Your task to perform on an android device: Is it going to rain tomorrow? Image 0: 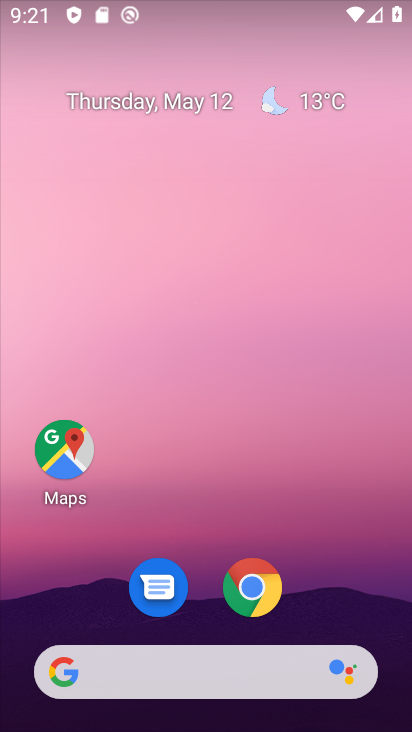
Step 0: drag from (339, 587) to (348, 33)
Your task to perform on an android device: Is it going to rain tomorrow? Image 1: 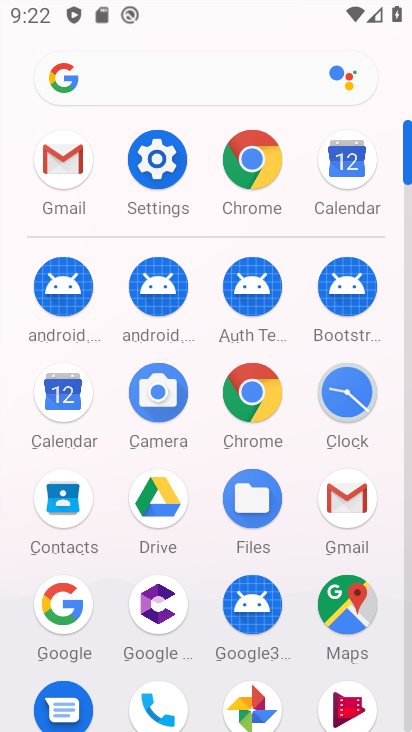
Step 1: press home button
Your task to perform on an android device: Is it going to rain tomorrow? Image 2: 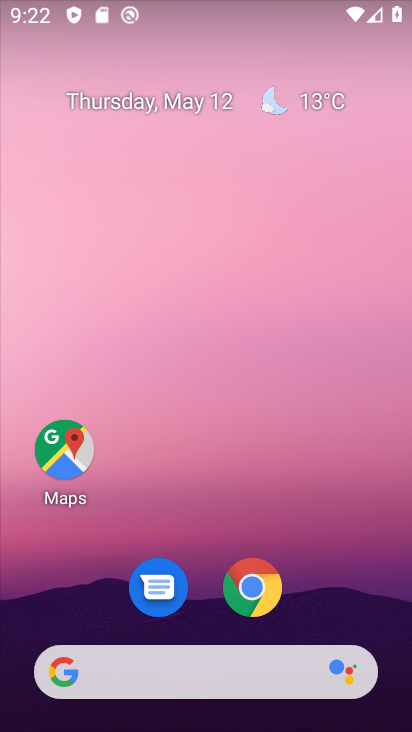
Step 2: click (317, 113)
Your task to perform on an android device: Is it going to rain tomorrow? Image 3: 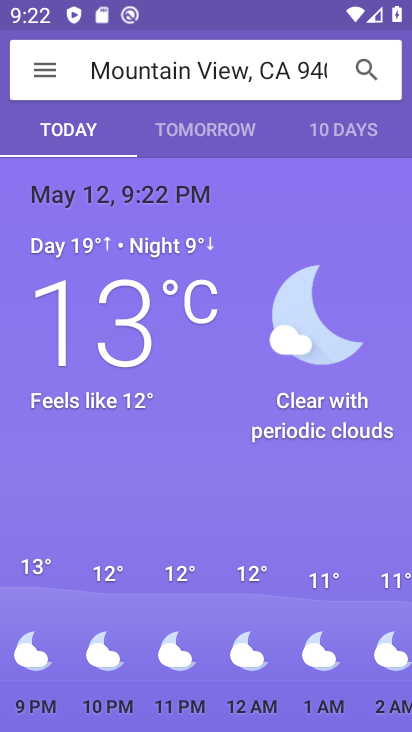
Step 3: task complete